Your task to perform on an android device: open app "Move to iOS" (install if not already installed), go to login, and select forgot password Image 0: 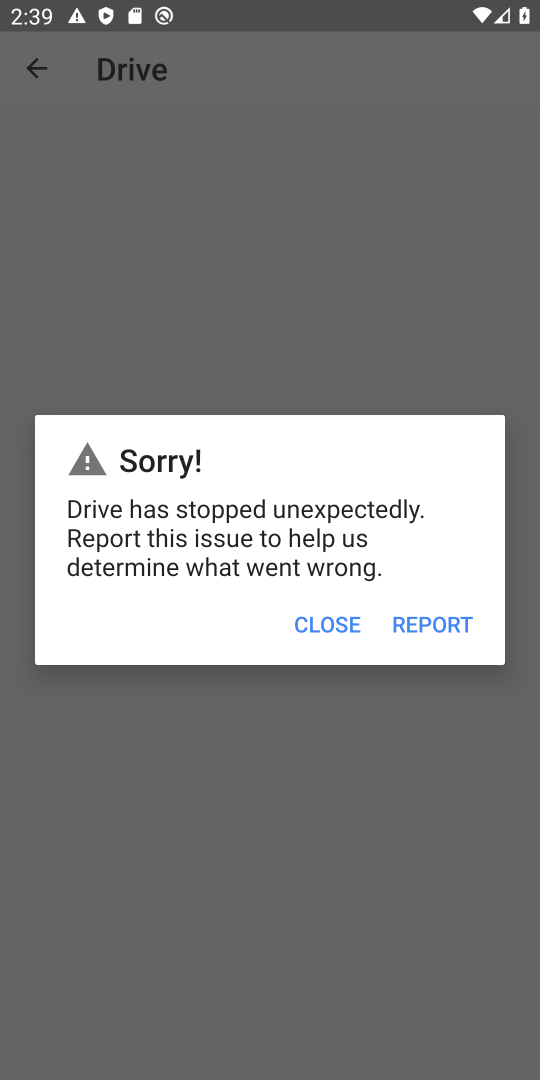
Step 0: press home button
Your task to perform on an android device: open app "Move to iOS" (install if not already installed), go to login, and select forgot password Image 1: 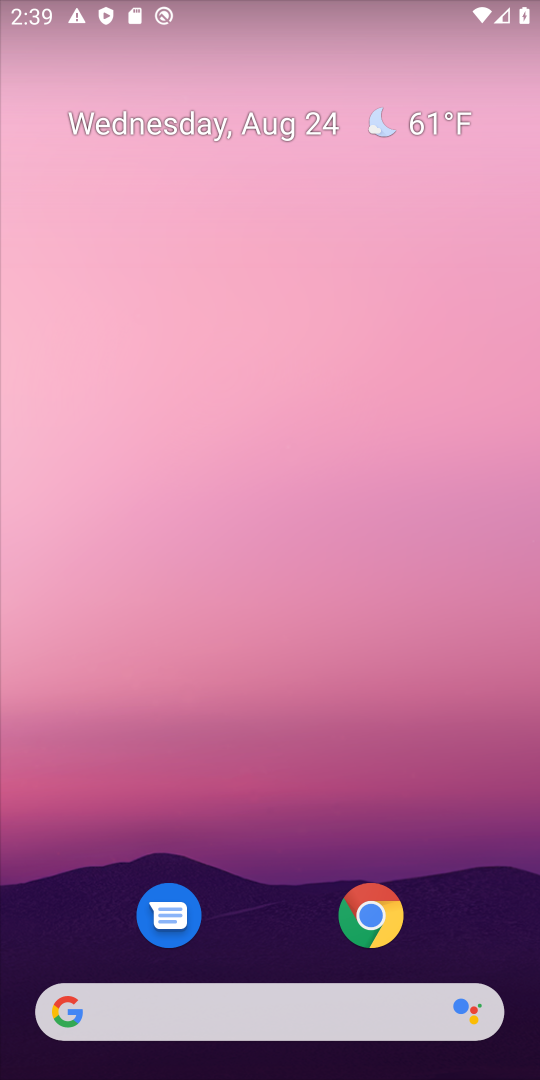
Step 1: drag from (269, 762) to (262, 158)
Your task to perform on an android device: open app "Move to iOS" (install if not already installed), go to login, and select forgot password Image 2: 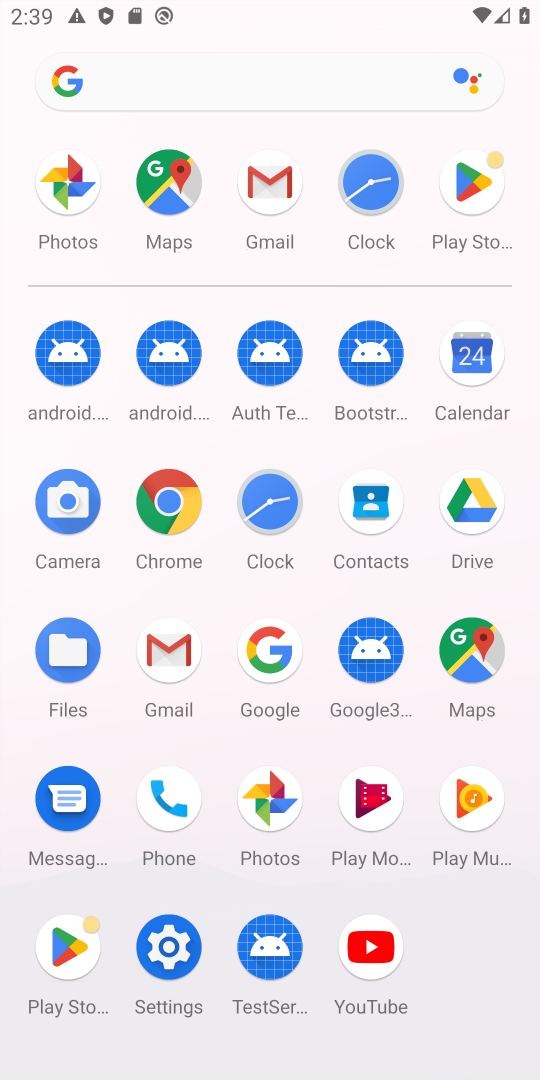
Step 2: click (450, 178)
Your task to perform on an android device: open app "Move to iOS" (install if not already installed), go to login, and select forgot password Image 3: 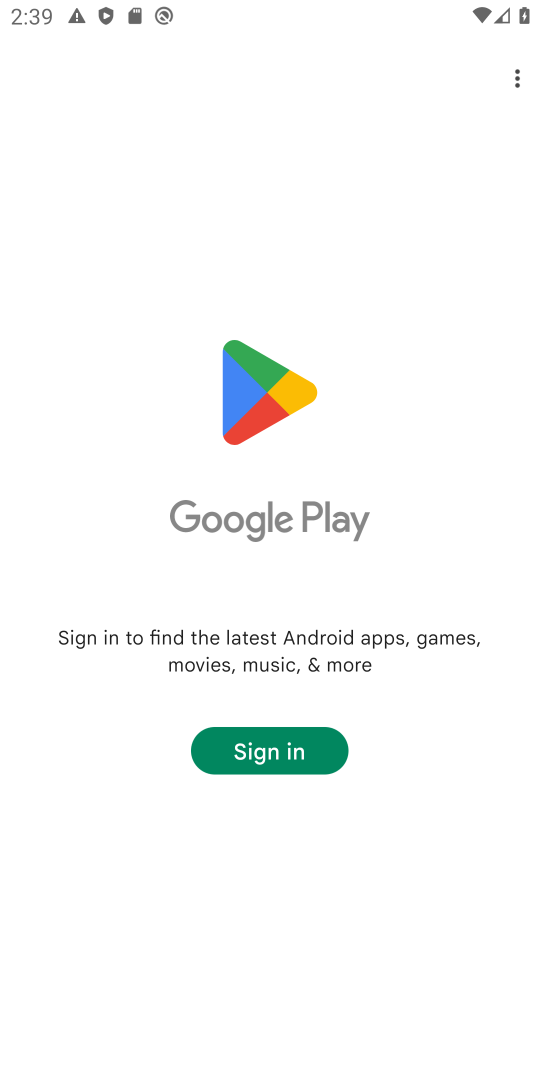
Step 3: task complete